Your task to perform on an android device: Go to network settings Image 0: 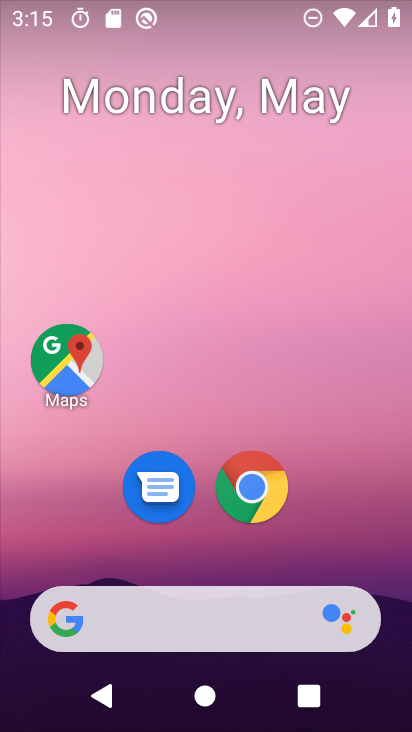
Step 0: drag from (260, 567) to (378, 11)
Your task to perform on an android device: Go to network settings Image 1: 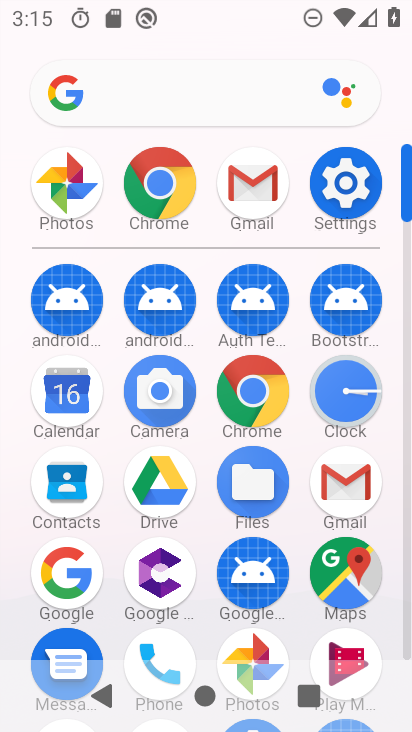
Step 1: click (355, 201)
Your task to perform on an android device: Go to network settings Image 2: 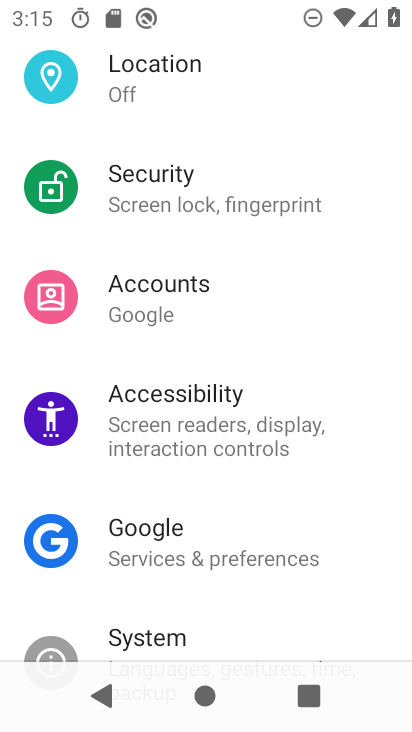
Step 2: drag from (152, 463) to (135, 725)
Your task to perform on an android device: Go to network settings Image 3: 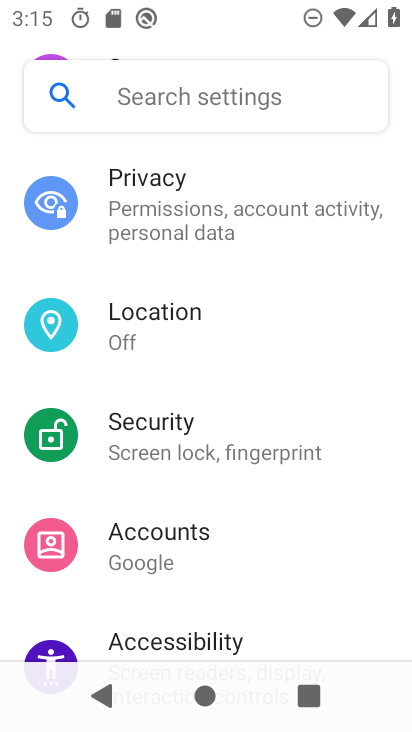
Step 3: drag from (192, 493) to (143, 716)
Your task to perform on an android device: Go to network settings Image 4: 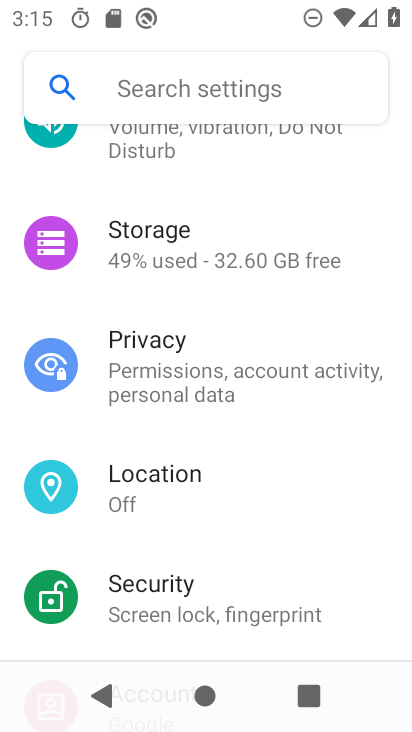
Step 4: drag from (221, 250) to (214, 604)
Your task to perform on an android device: Go to network settings Image 5: 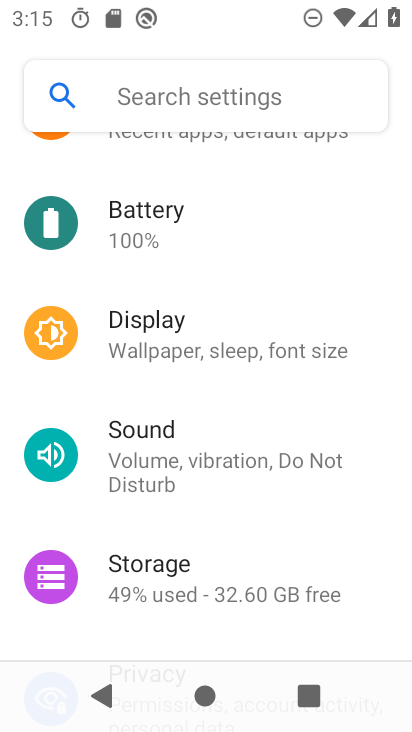
Step 5: drag from (251, 229) to (245, 557)
Your task to perform on an android device: Go to network settings Image 6: 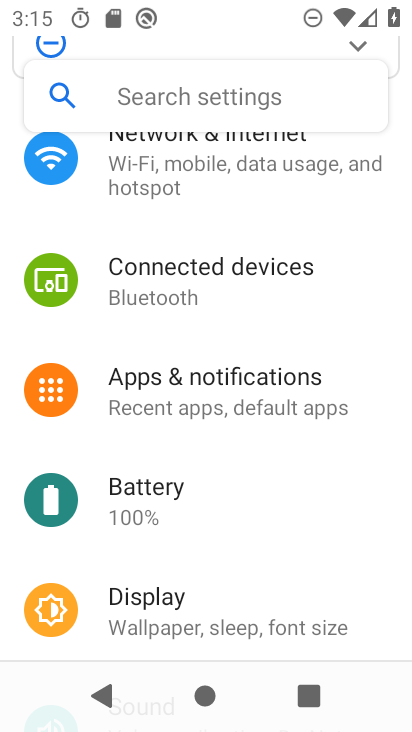
Step 6: drag from (306, 341) to (321, 579)
Your task to perform on an android device: Go to network settings Image 7: 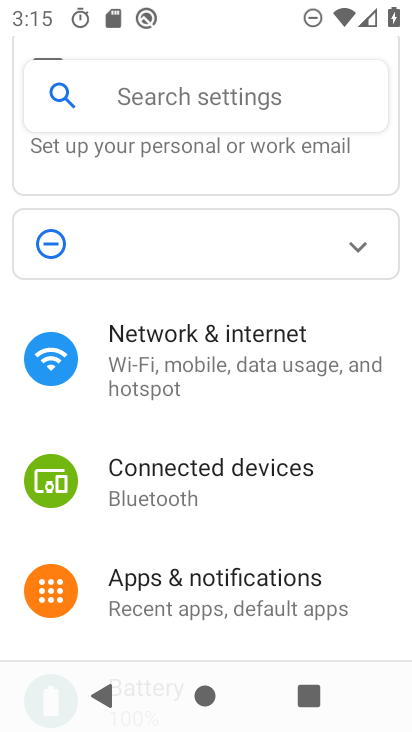
Step 7: click (242, 351)
Your task to perform on an android device: Go to network settings Image 8: 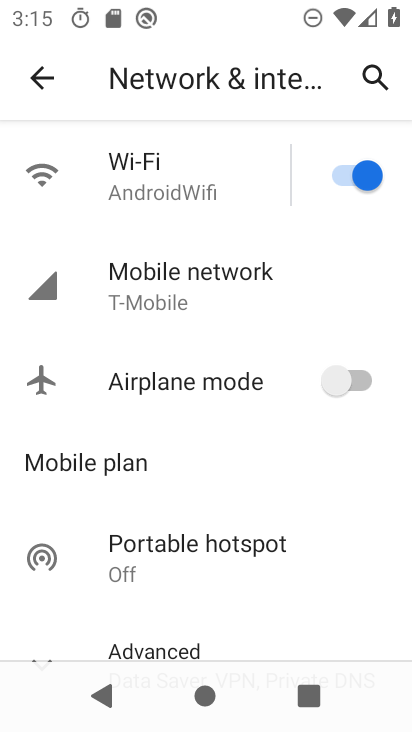
Step 8: task complete